Your task to perform on an android device: toggle show notifications on the lock screen Image 0: 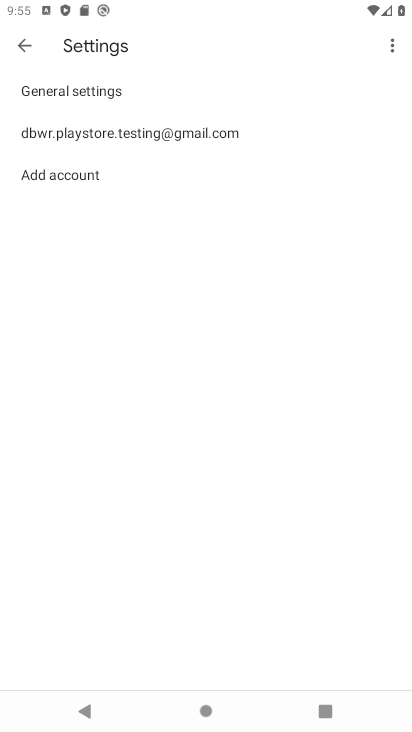
Step 0: press home button
Your task to perform on an android device: toggle show notifications on the lock screen Image 1: 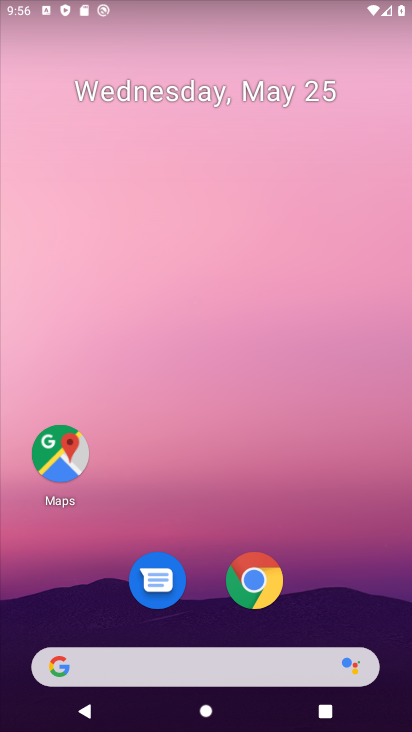
Step 1: drag from (18, 641) to (254, 112)
Your task to perform on an android device: toggle show notifications on the lock screen Image 2: 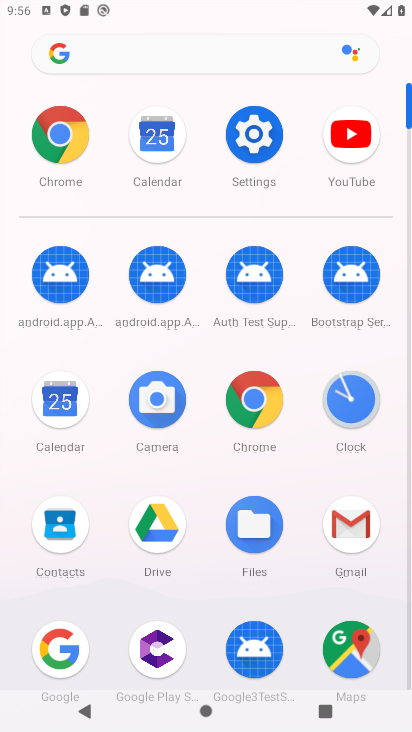
Step 2: click (248, 129)
Your task to perform on an android device: toggle show notifications on the lock screen Image 3: 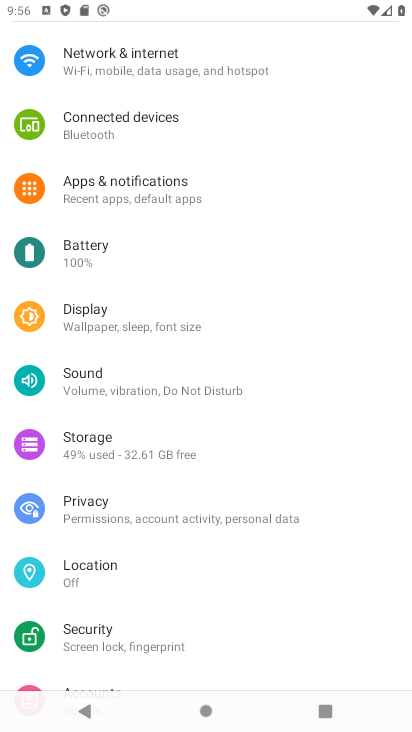
Step 3: click (58, 195)
Your task to perform on an android device: toggle show notifications on the lock screen Image 4: 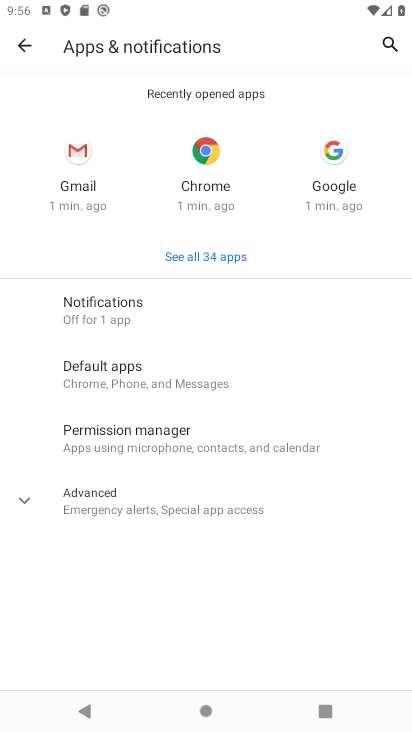
Step 4: click (106, 314)
Your task to perform on an android device: toggle show notifications on the lock screen Image 5: 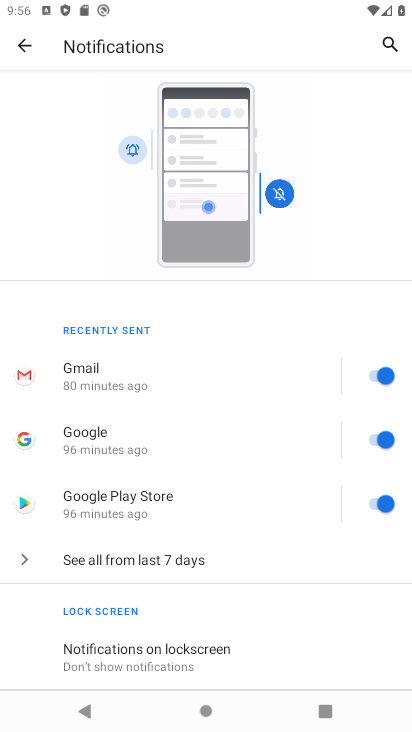
Step 5: click (99, 660)
Your task to perform on an android device: toggle show notifications on the lock screen Image 6: 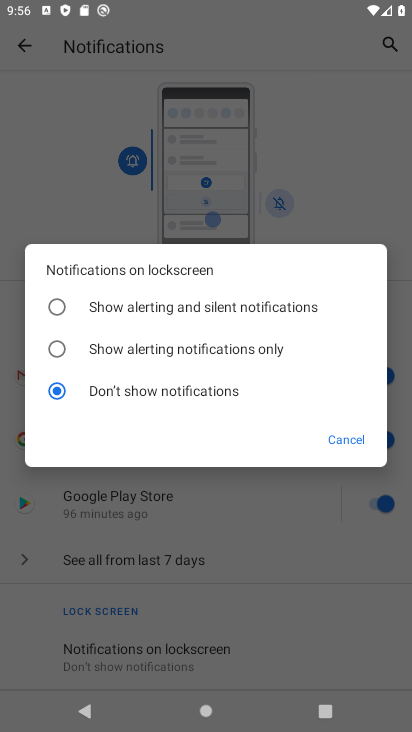
Step 6: click (58, 312)
Your task to perform on an android device: toggle show notifications on the lock screen Image 7: 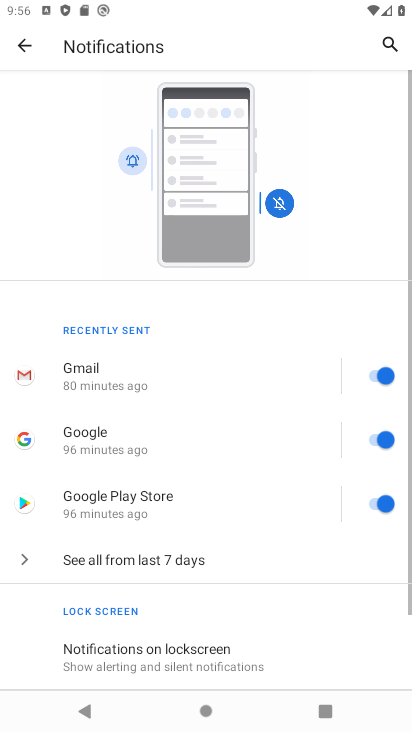
Step 7: task complete